Your task to perform on an android device: Go to notification settings Image 0: 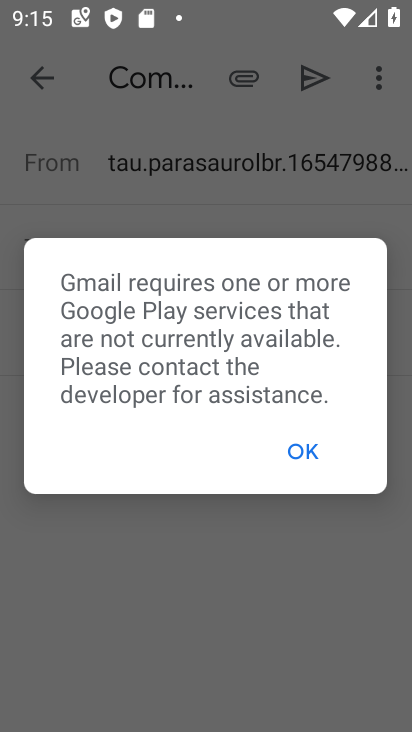
Step 0: press home button
Your task to perform on an android device: Go to notification settings Image 1: 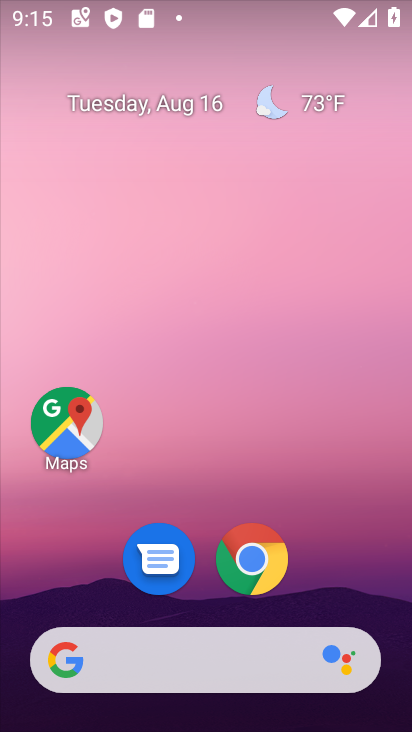
Step 1: drag from (337, 587) to (370, 74)
Your task to perform on an android device: Go to notification settings Image 2: 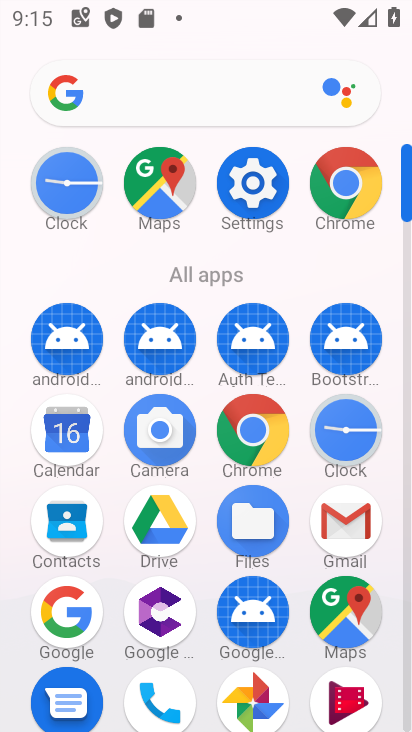
Step 2: click (246, 183)
Your task to perform on an android device: Go to notification settings Image 3: 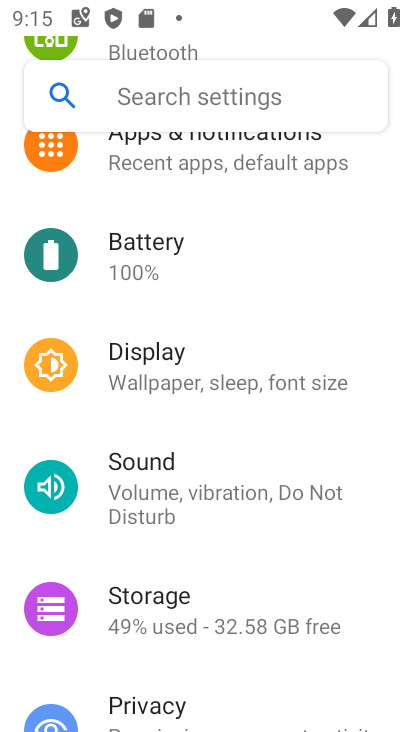
Step 3: drag from (247, 235) to (211, 501)
Your task to perform on an android device: Go to notification settings Image 4: 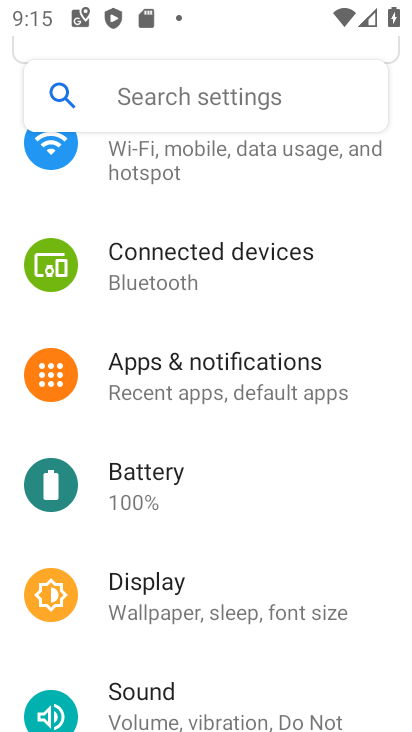
Step 4: click (180, 372)
Your task to perform on an android device: Go to notification settings Image 5: 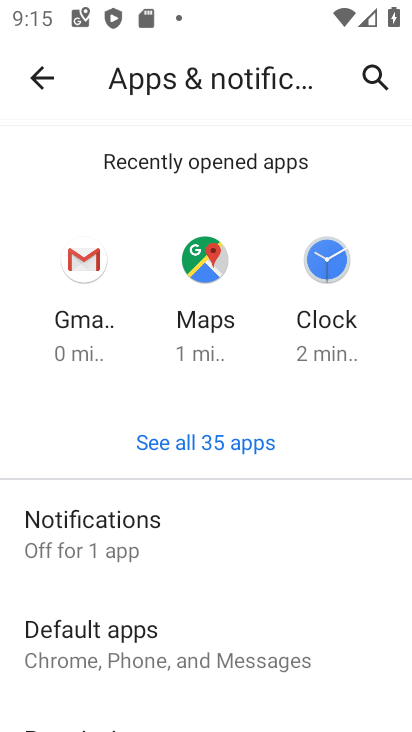
Step 5: click (93, 517)
Your task to perform on an android device: Go to notification settings Image 6: 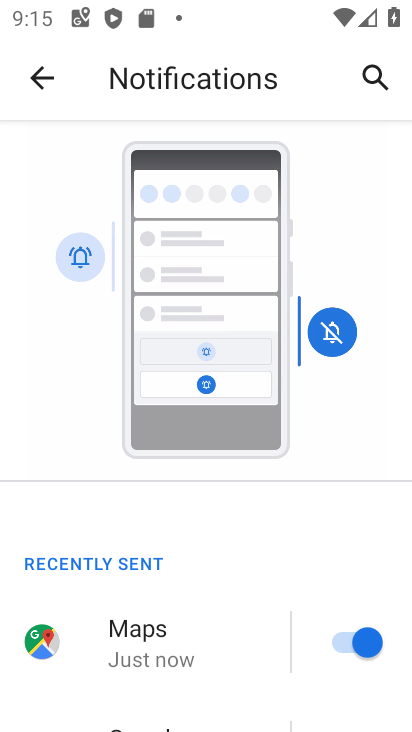
Step 6: task complete